Your task to perform on an android device: Clear the shopping cart on costco.com. Image 0: 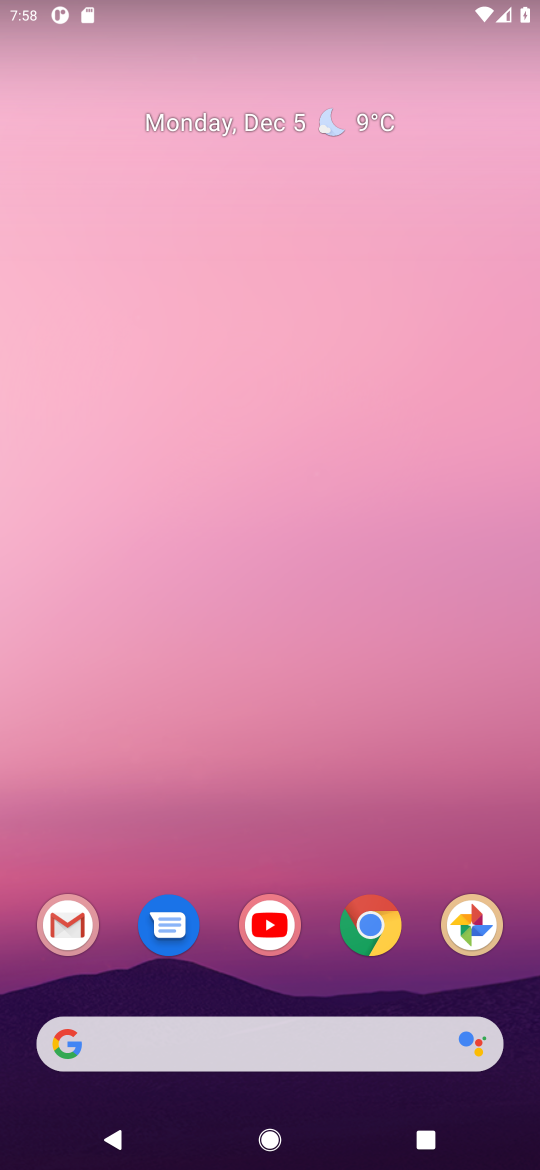
Step 0: click (374, 934)
Your task to perform on an android device: Clear the shopping cart on costco.com. Image 1: 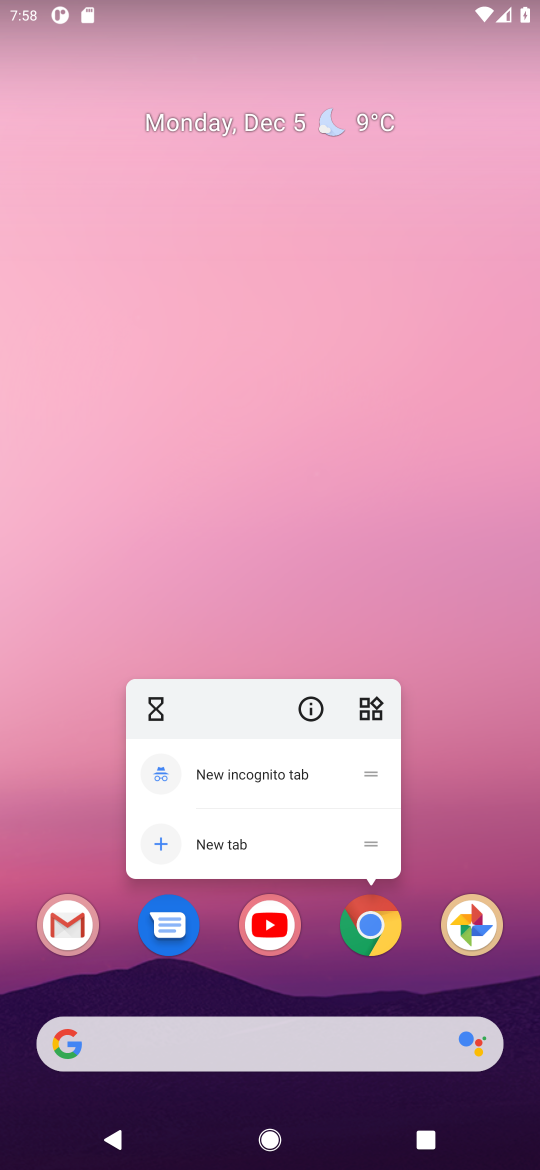
Step 1: click (374, 934)
Your task to perform on an android device: Clear the shopping cart on costco.com. Image 2: 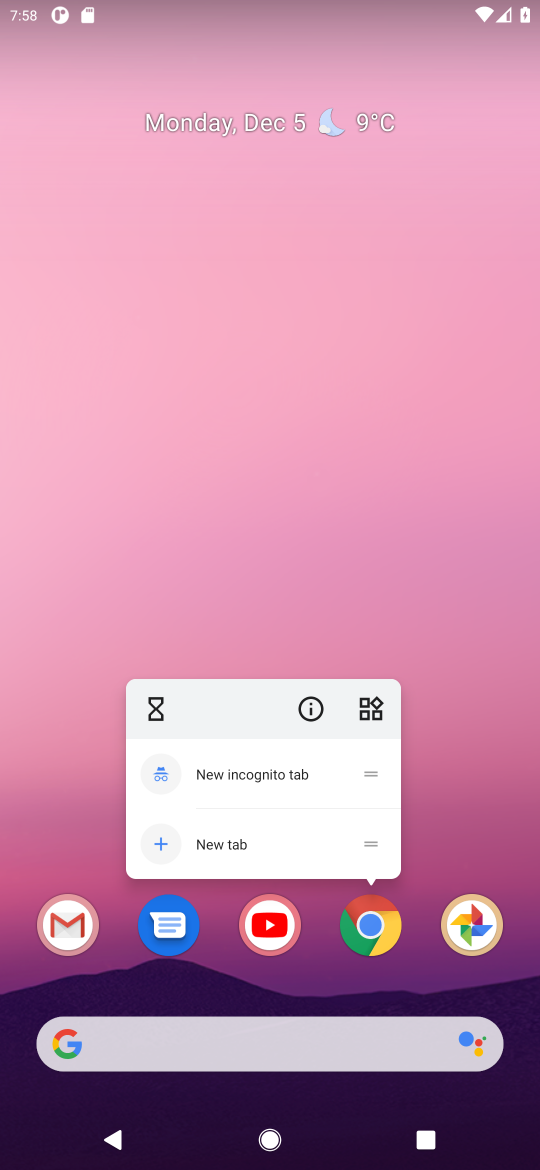
Step 2: click (374, 934)
Your task to perform on an android device: Clear the shopping cart on costco.com. Image 3: 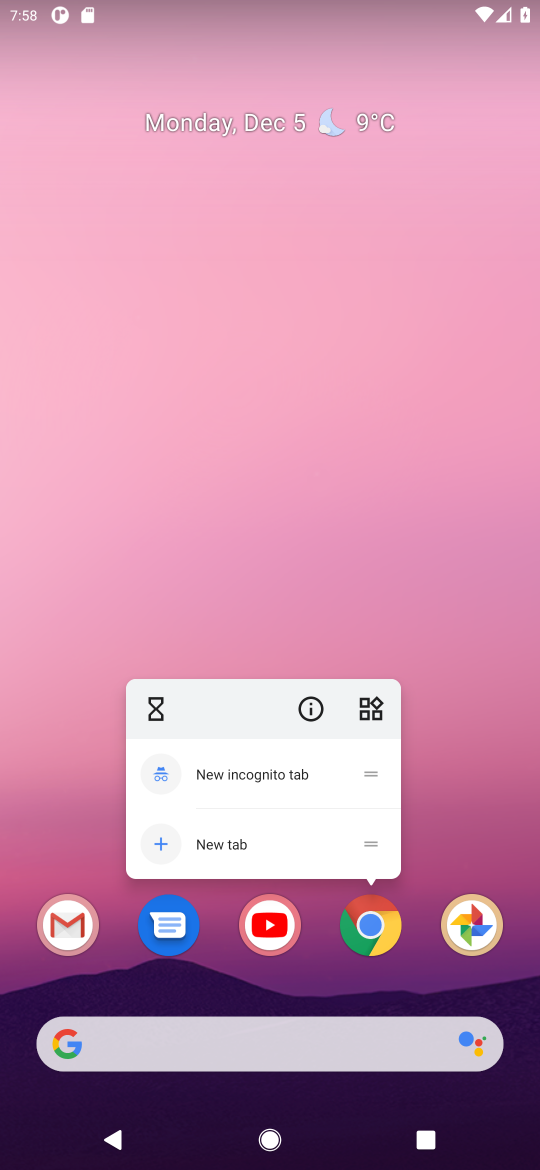
Step 3: click (374, 919)
Your task to perform on an android device: Clear the shopping cart on costco.com. Image 4: 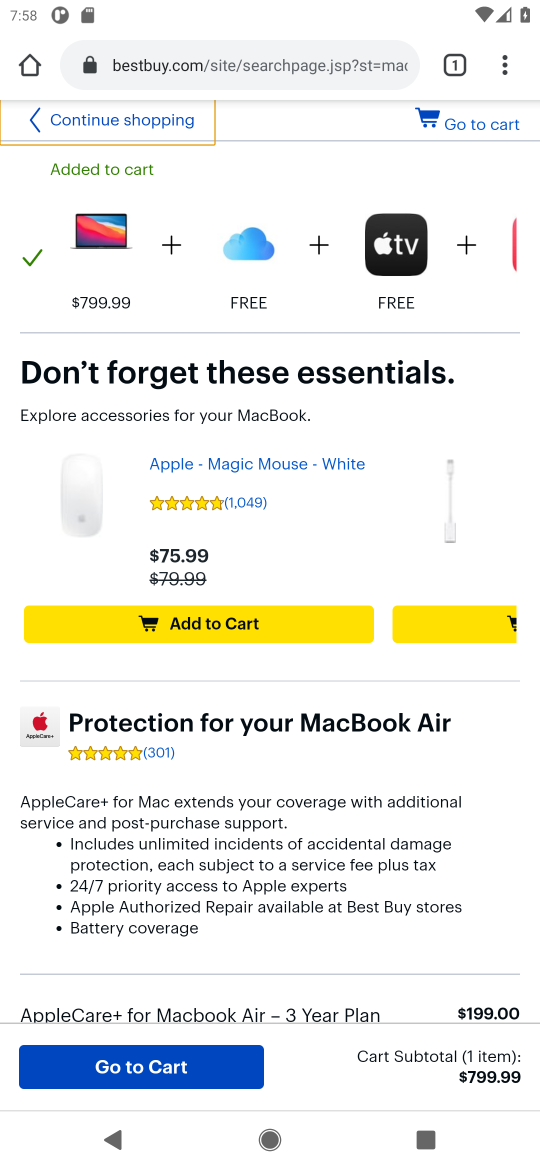
Step 4: click (230, 62)
Your task to perform on an android device: Clear the shopping cart on costco.com. Image 5: 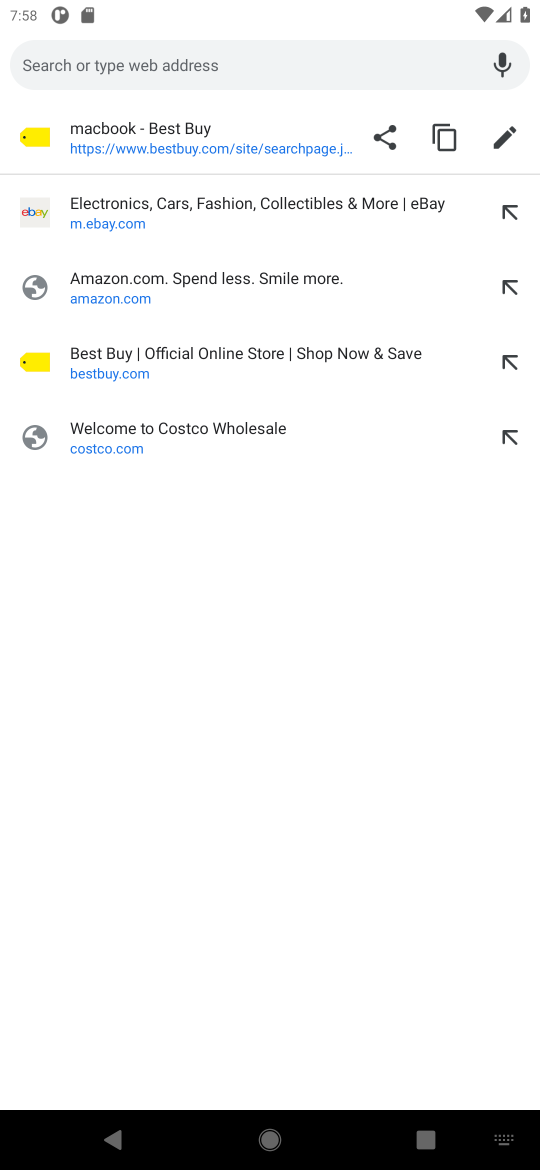
Step 5: click (112, 439)
Your task to perform on an android device: Clear the shopping cart on costco.com. Image 6: 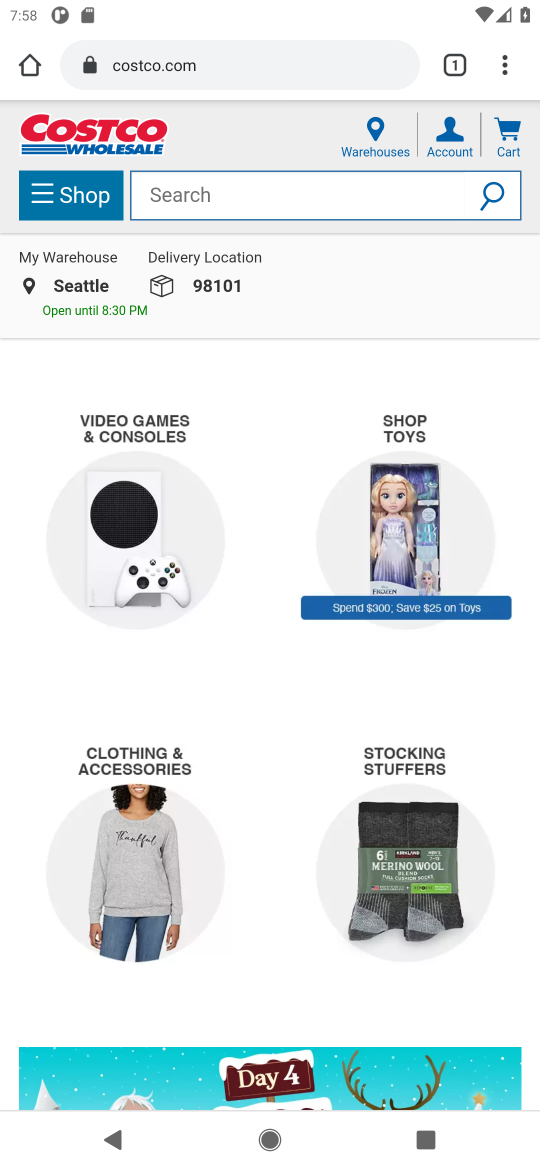
Step 6: click (504, 137)
Your task to perform on an android device: Clear the shopping cart on costco.com. Image 7: 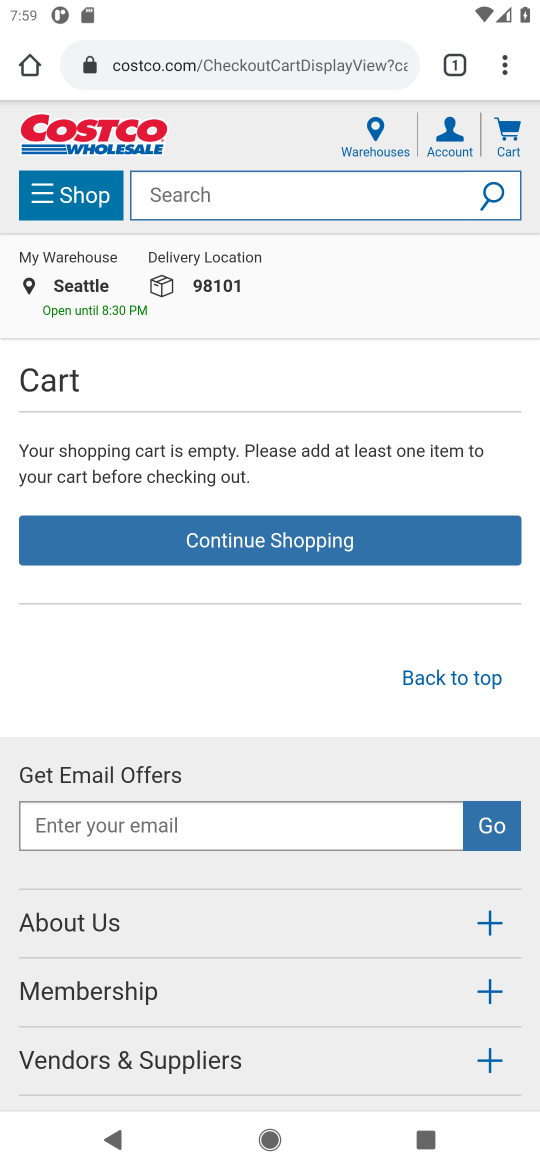
Step 7: task complete